Your task to perform on an android device: turn pop-ups on in chrome Image 0: 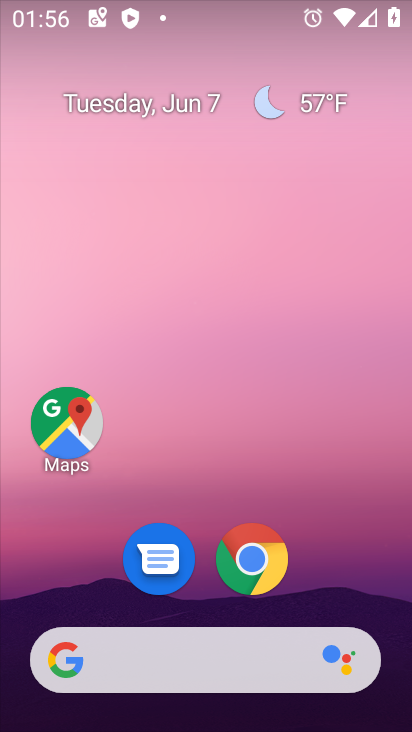
Step 0: click (253, 556)
Your task to perform on an android device: turn pop-ups on in chrome Image 1: 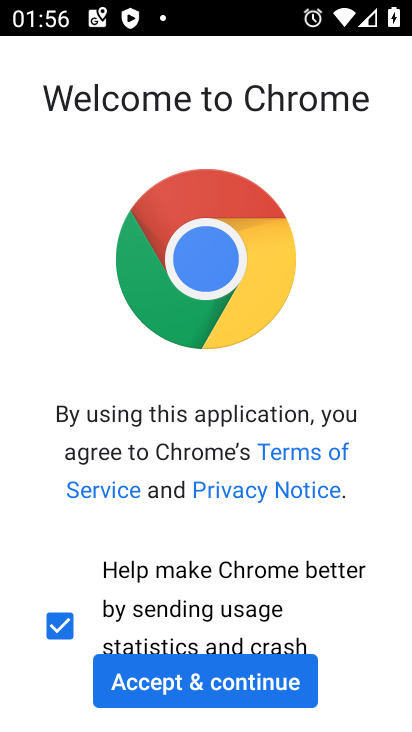
Step 1: click (213, 667)
Your task to perform on an android device: turn pop-ups on in chrome Image 2: 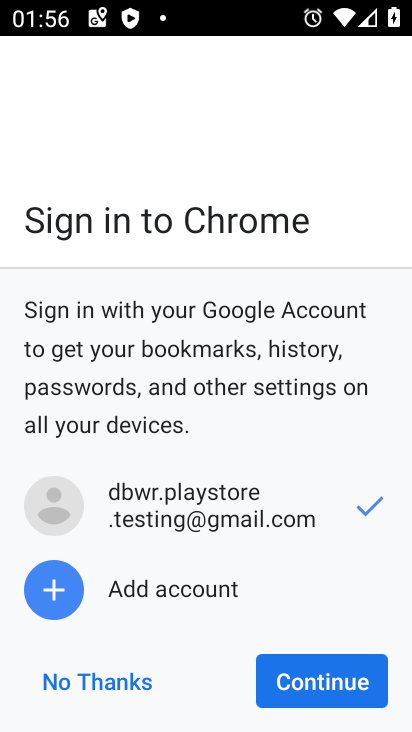
Step 2: click (296, 684)
Your task to perform on an android device: turn pop-ups on in chrome Image 3: 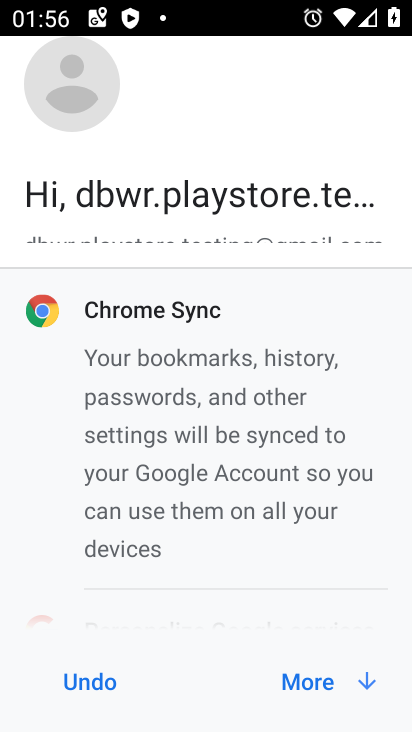
Step 3: click (296, 684)
Your task to perform on an android device: turn pop-ups on in chrome Image 4: 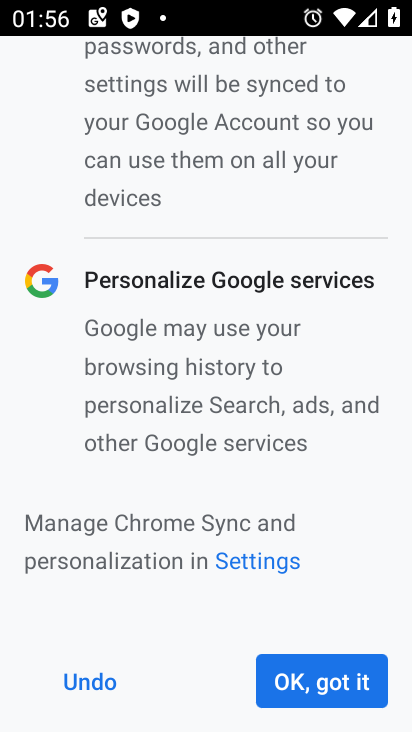
Step 4: click (296, 684)
Your task to perform on an android device: turn pop-ups on in chrome Image 5: 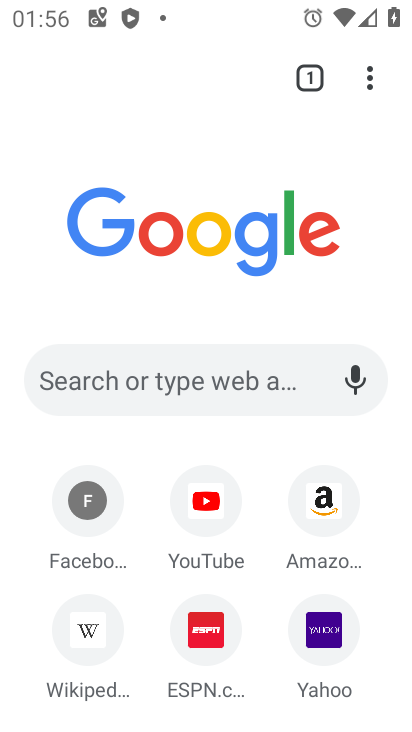
Step 5: click (369, 77)
Your task to perform on an android device: turn pop-ups on in chrome Image 6: 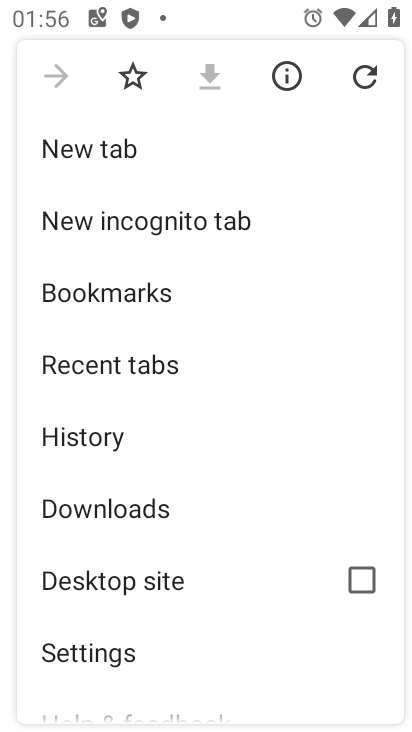
Step 6: click (86, 651)
Your task to perform on an android device: turn pop-ups on in chrome Image 7: 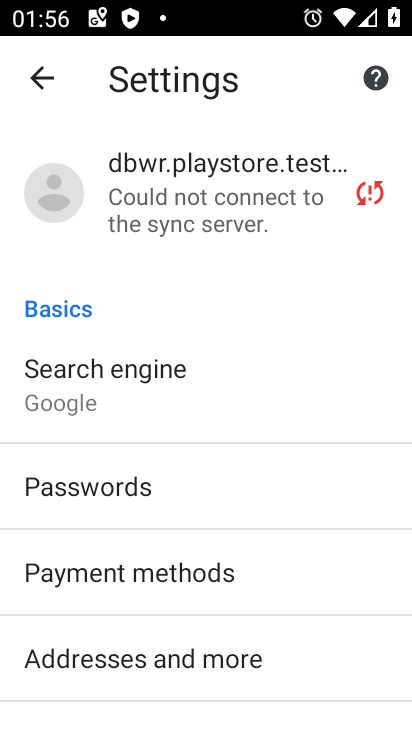
Step 7: drag from (262, 595) to (294, 438)
Your task to perform on an android device: turn pop-ups on in chrome Image 8: 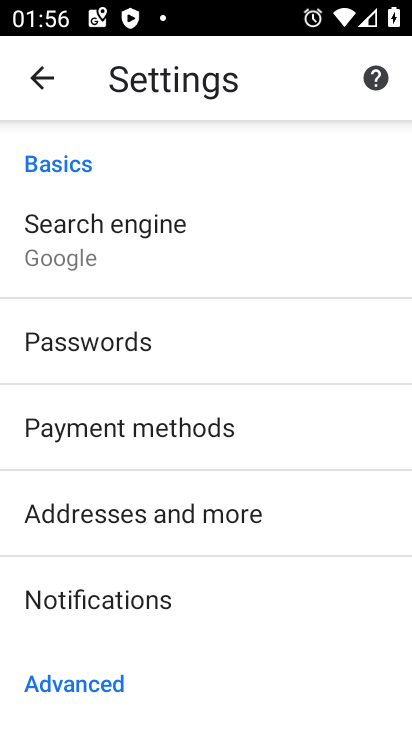
Step 8: drag from (214, 599) to (280, 459)
Your task to perform on an android device: turn pop-ups on in chrome Image 9: 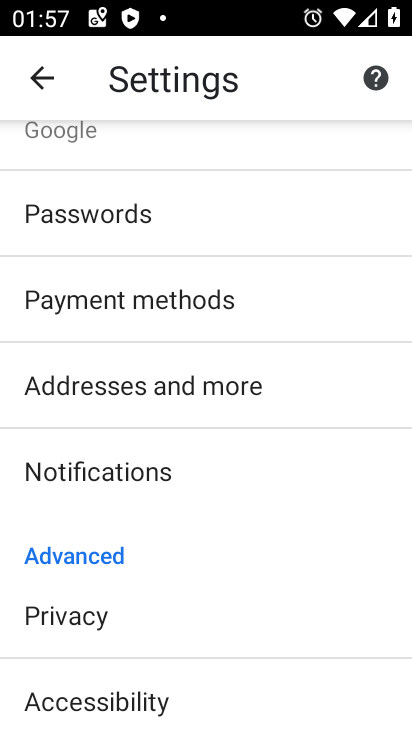
Step 9: drag from (162, 601) to (254, 385)
Your task to perform on an android device: turn pop-ups on in chrome Image 10: 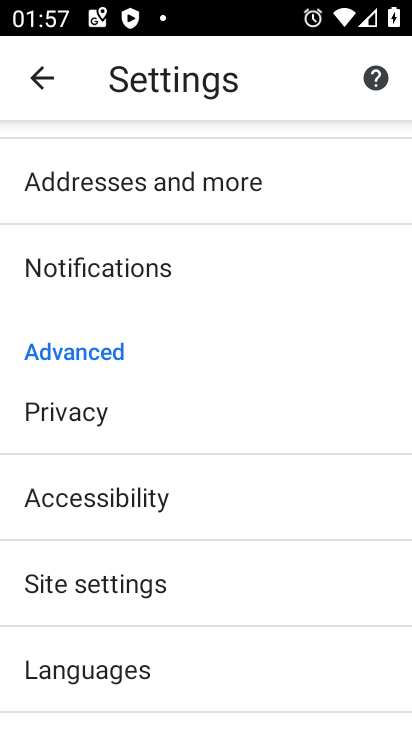
Step 10: click (161, 591)
Your task to perform on an android device: turn pop-ups on in chrome Image 11: 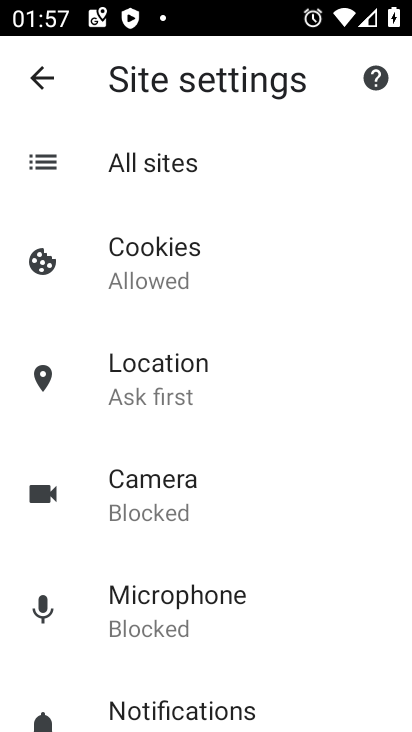
Step 11: drag from (168, 554) to (231, 427)
Your task to perform on an android device: turn pop-ups on in chrome Image 12: 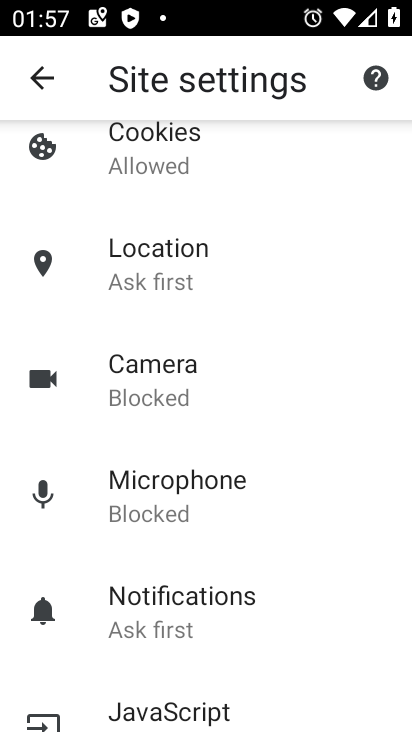
Step 12: drag from (196, 639) to (241, 485)
Your task to perform on an android device: turn pop-ups on in chrome Image 13: 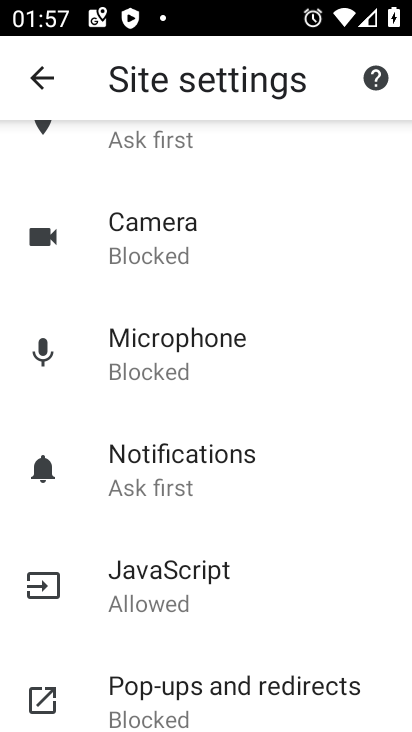
Step 13: drag from (199, 624) to (204, 493)
Your task to perform on an android device: turn pop-ups on in chrome Image 14: 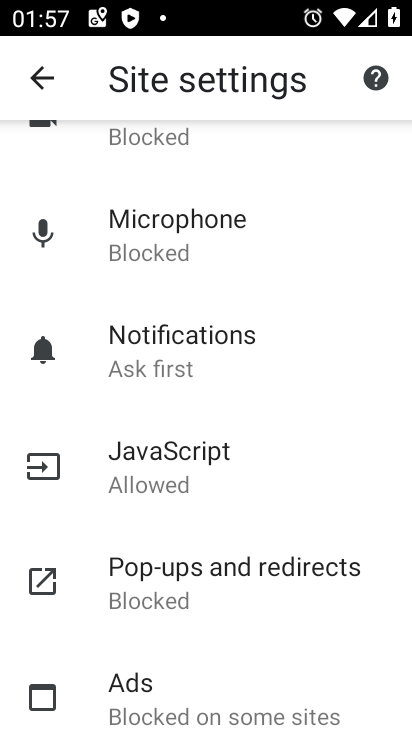
Step 14: click (194, 568)
Your task to perform on an android device: turn pop-ups on in chrome Image 15: 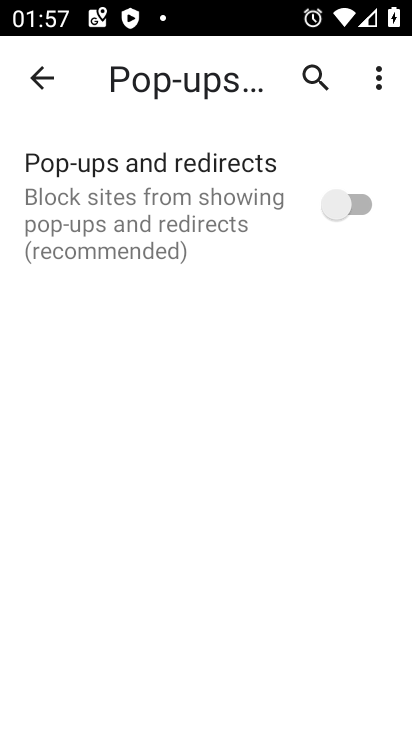
Step 15: click (342, 211)
Your task to perform on an android device: turn pop-ups on in chrome Image 16: 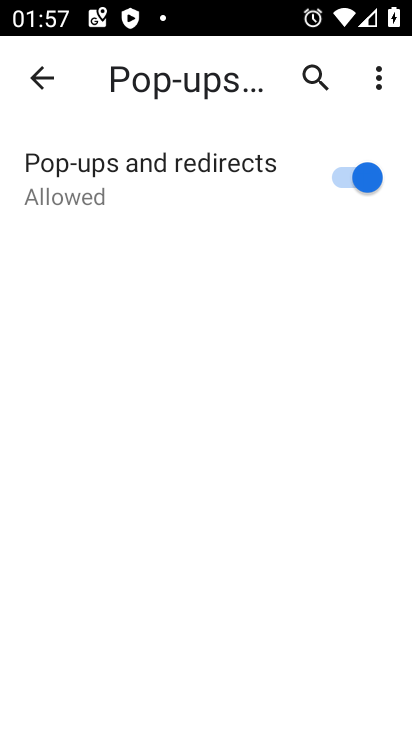
Step 16: task complete